Your task to perform on an android device: delete browsing data in the chrome app Image 0: 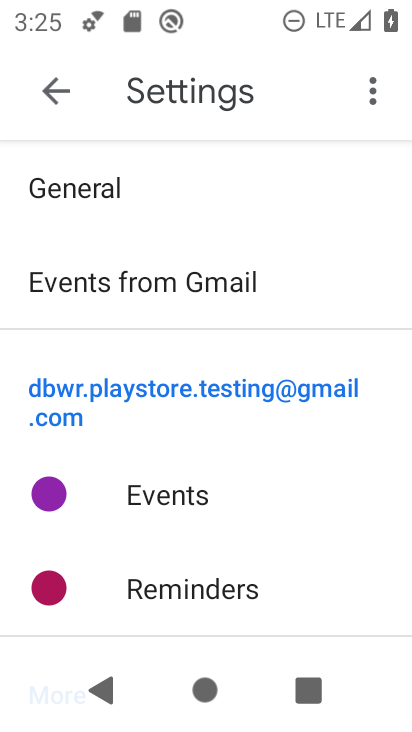
Step 0: press home button
Your task to perform on an android device: delete browsing data in the chrome app Image 1: 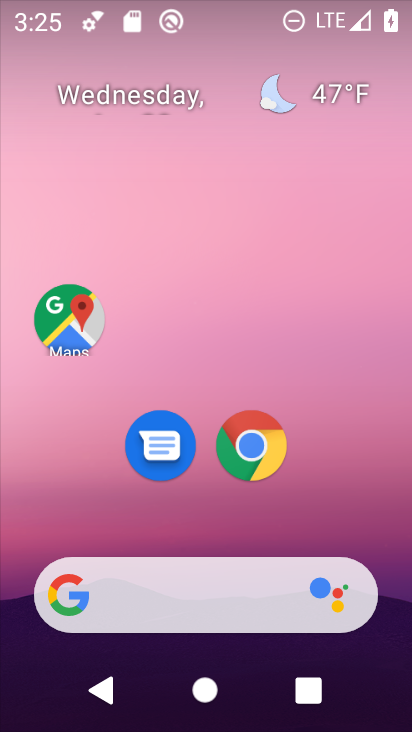
Step 1: click (251, 439)
Your task to perform on an android device: delete browsing data in the chrome app Image 2: 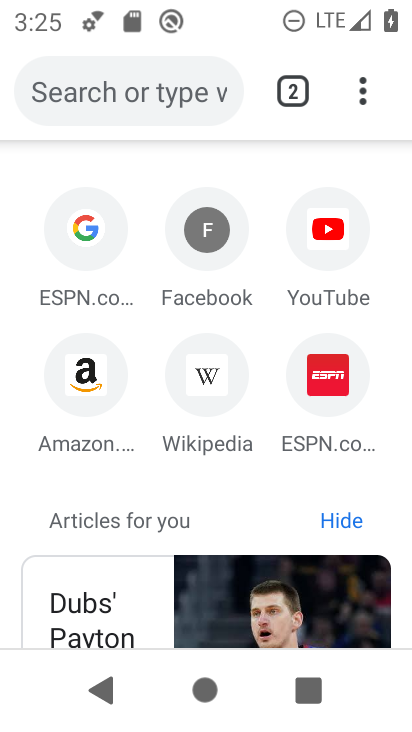
Step 2: click (363, 93)
Your task to perform on an android device: delete browsing data in the chrome app Image 3: 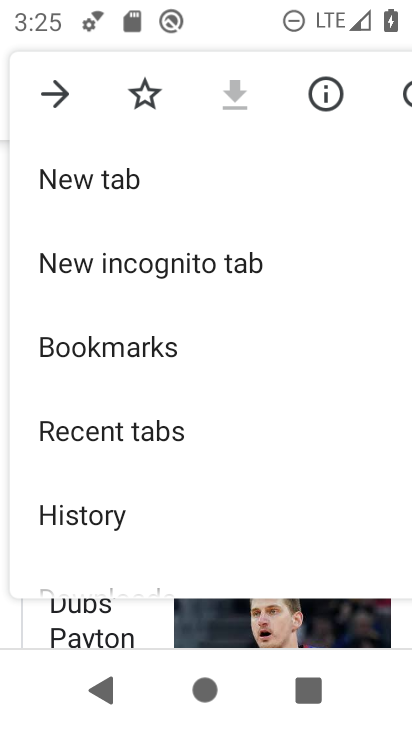
Step 3: drag from (218, 482) to (265, 301)
Your task to perform on an android device: delete browsing data in the chrome app Image 4: 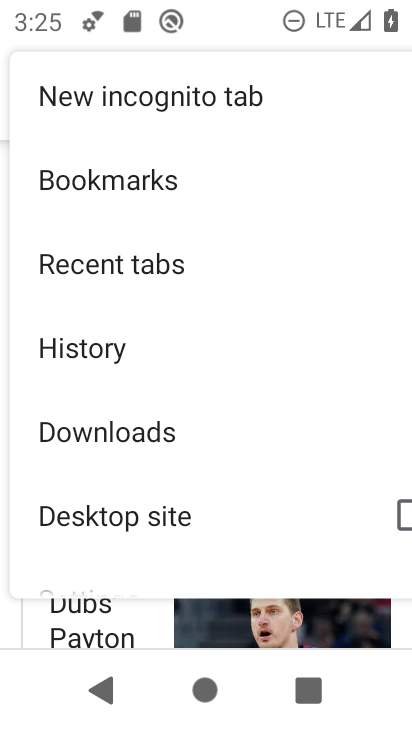
Step 4: drag from (206, 431) to (236, 280)
Your task to perform on an android device: delete browsing data in the chrome app Image 5: 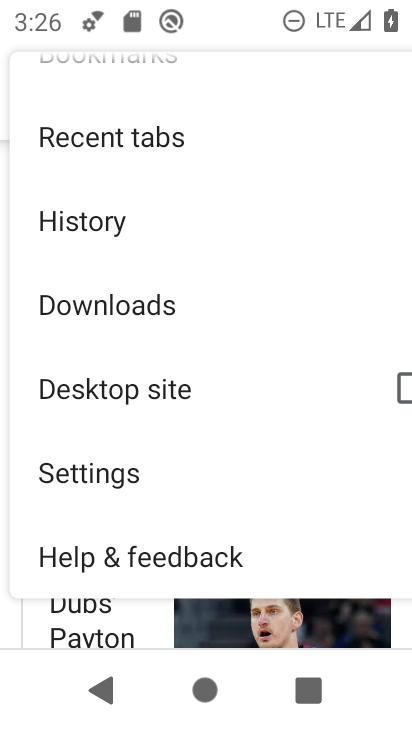
Step 5: click (109, 483)
Your task to perform on an android device: delete browsing data in the chrome app Image 6: 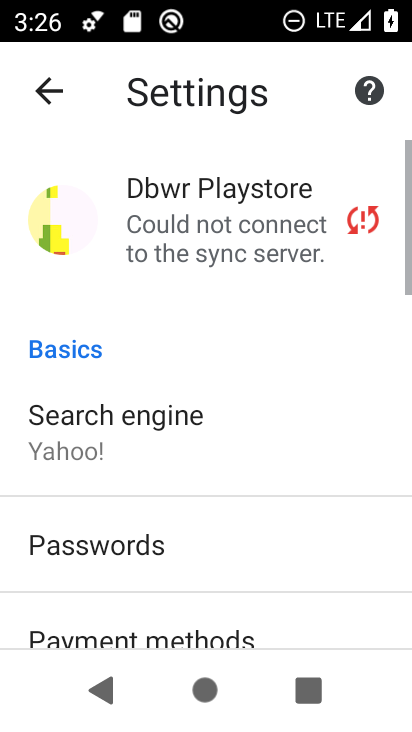
Step 6: drag from (172, 457) to (231, 330)
Your task to perform on an android device: delete browsing data in the chrome app Image 7: 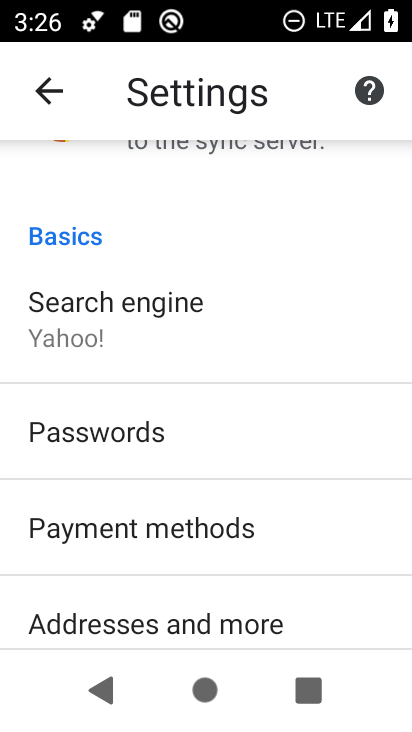
Step 7: drag from (188, 511) to (236, 340)
Your task to perform on an android device: delete browsing data in the chrome app Image 8: 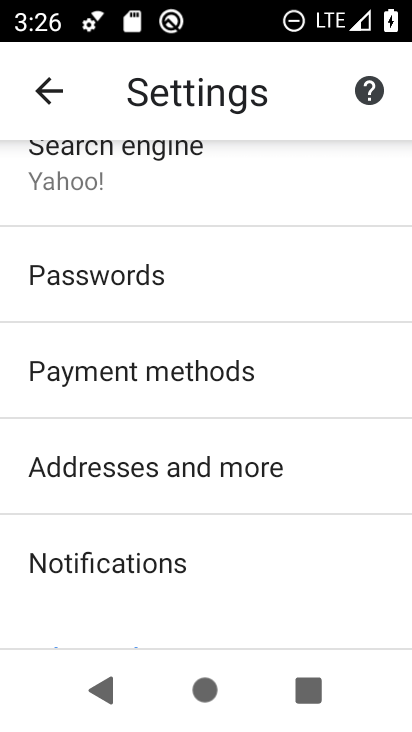
Step 8: drag from (172, 504) to (238, 357)
Your task to perform on an android device: delete browsing data in the chrome app Image 9: 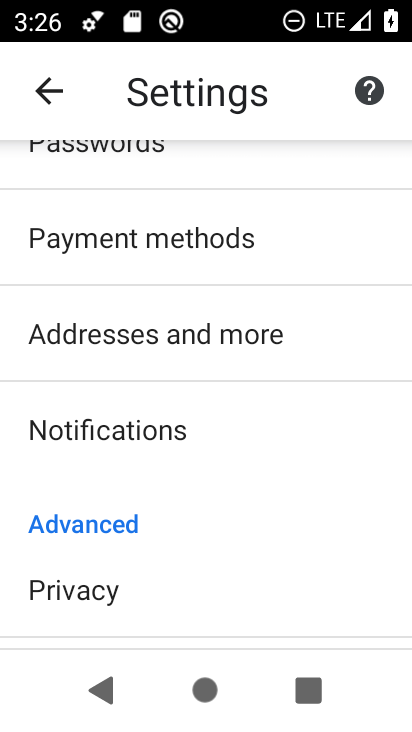
Step 9: drag from (164, 540) to (241, 357)
Your task to perform on an android device: delete browsing data in the chrome app Image 10: 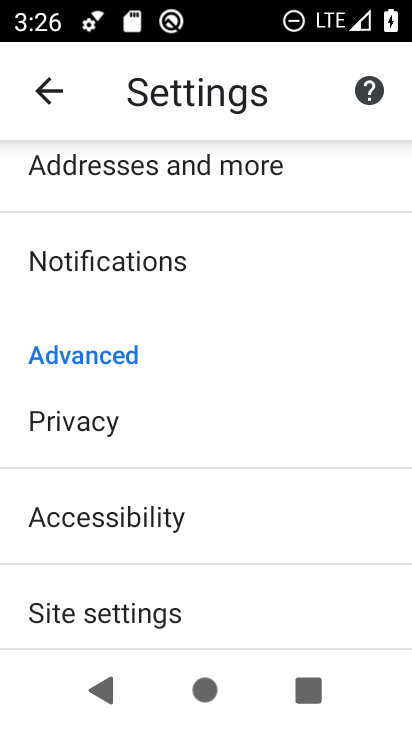
Step 10: click (112, 422)
Your task to perform on an android device: delete browsing data in the chrome app Image 11: 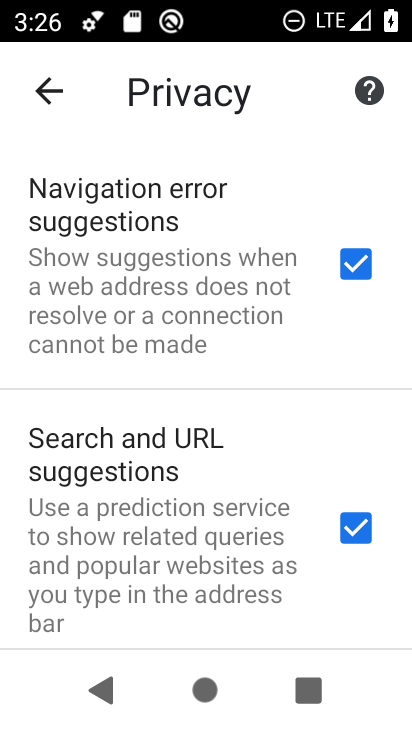
Step 11: drag from (149, 622) to (237, 352)
Your task to perform on an android device: delete browsing data in the chrome app Image 12: 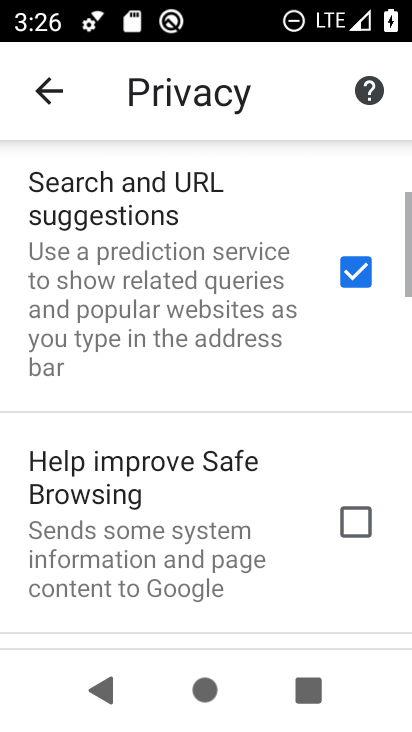
Step 12: drag from (172, 616) to (209, 376)
Your task to perform on an android device: delete browsing data in the chrome app Image 13: 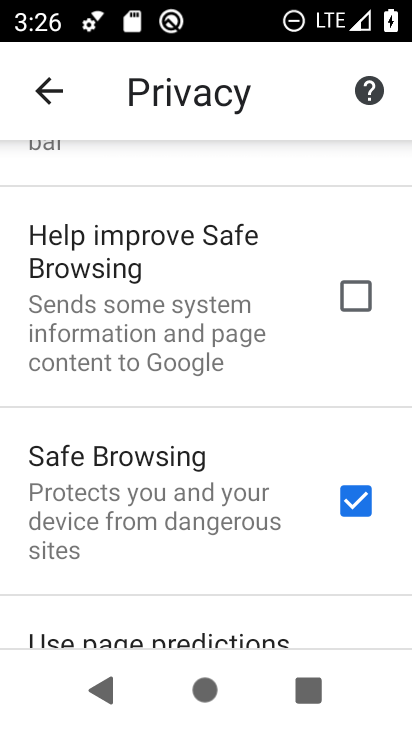
Step 13: drag from (151, 582) to (209, 340)
Your task to perform on an android device: delete browsing data in the chrome app Image 14: 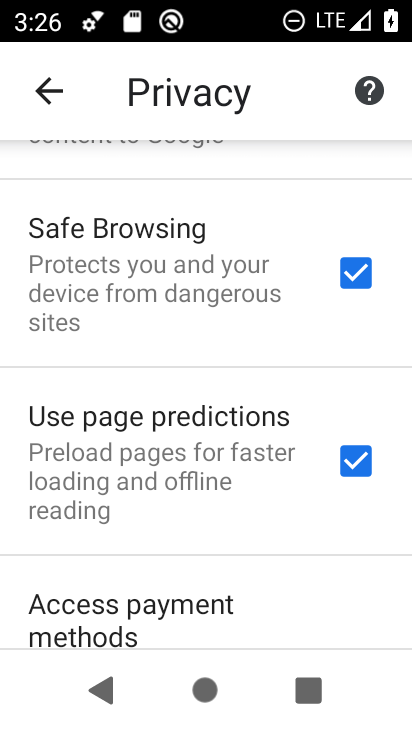
Step 14: drag from (148, 498) to (209, 314)
Your task to perform on an android device: delete browsing data in the chrome app Image 15: 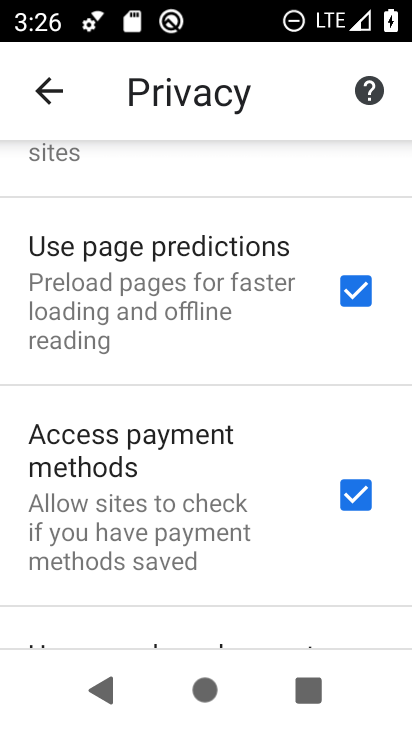
Step 15: drag from (155, 580) to (233, 317)
Your task to perform on an android device: delete browsing data in the chrome app Image 16: 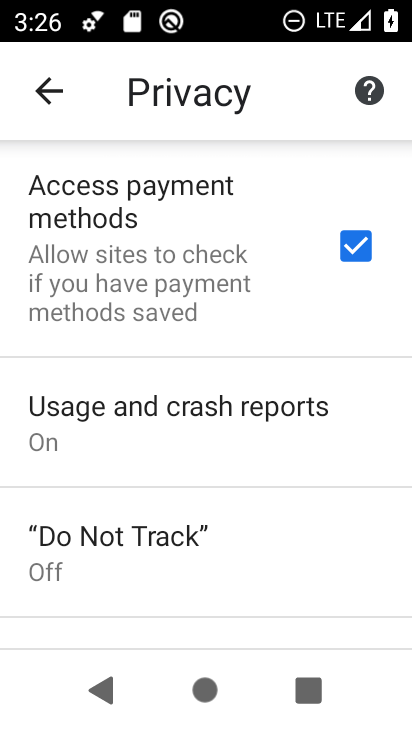
Step 16: drag from (142, 475) to (221, 274)
Your task to perform on an android device: delete browsing data in the chrome app Image 17: 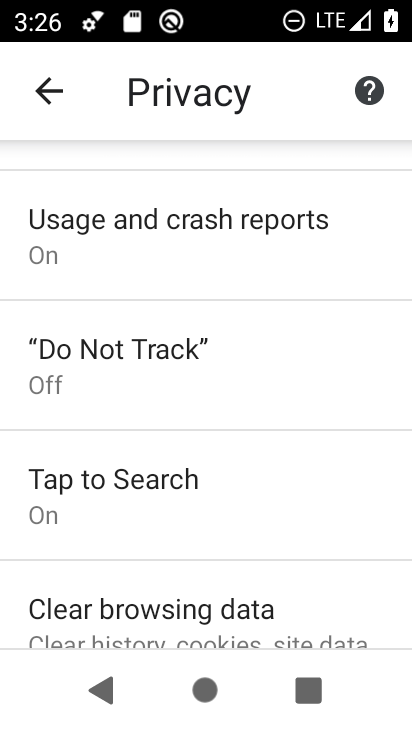
Step 17: drag from (135, 414) to (232, 248)
Your task to perform on an android device: delete browsing data in the chrome app Image 18: 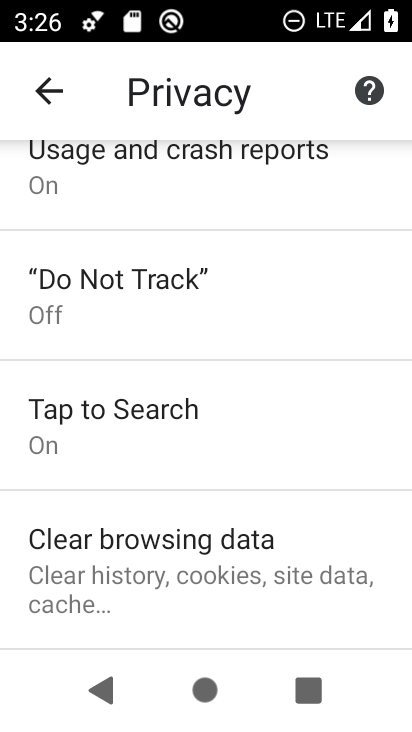
Step 18: click (199, 533)
Your task to perform on an android device: delete browsing data in the chrome app Image 19: 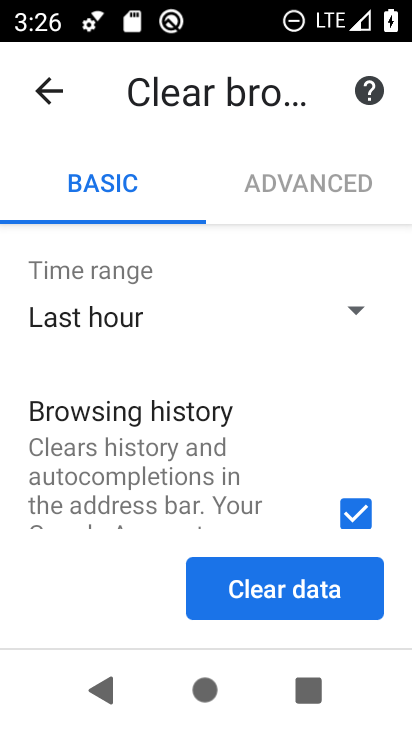
Step 19: click (234, 584)
Your task to perform on an android device: delete browsing data in the chrome app Image 20: 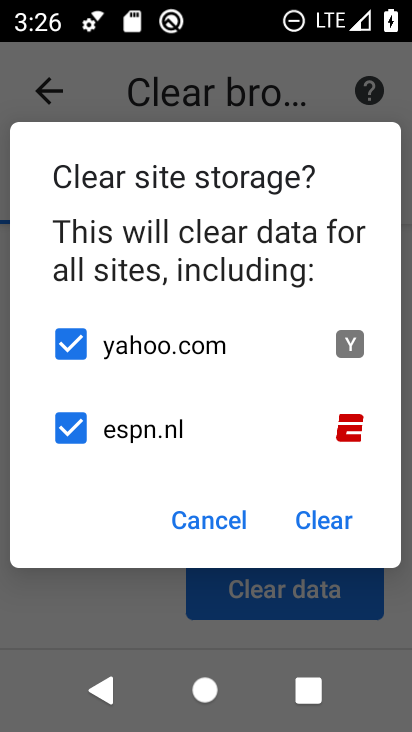
Step 20: click (317, 527)
Your task to perform on an android device: delete browsing data in the chrome app Image 21: 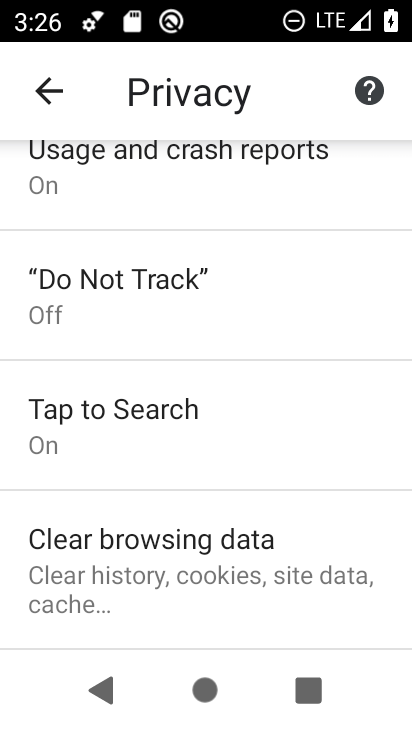
Step 21: task complete